Your task to perform on an android device: open app "Pandora - Music & Podcasts" (install if not already installed) and enter user name: "creator@yahoo.com" and password: "valuable" Image 0: 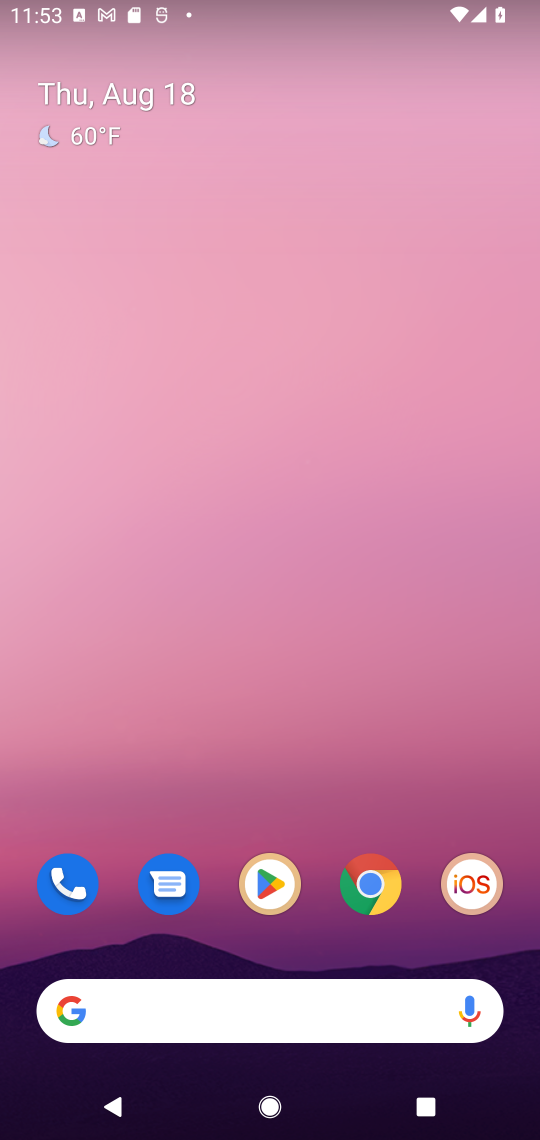
Step 0: drag from (278, 999) to (348, 60)
Your task to perform on an android device: open app "Pandora - Music & Podcasts" (install if not already installed) and enter user name: "creator@yahoo.com" and password: "valuable" Image 1: 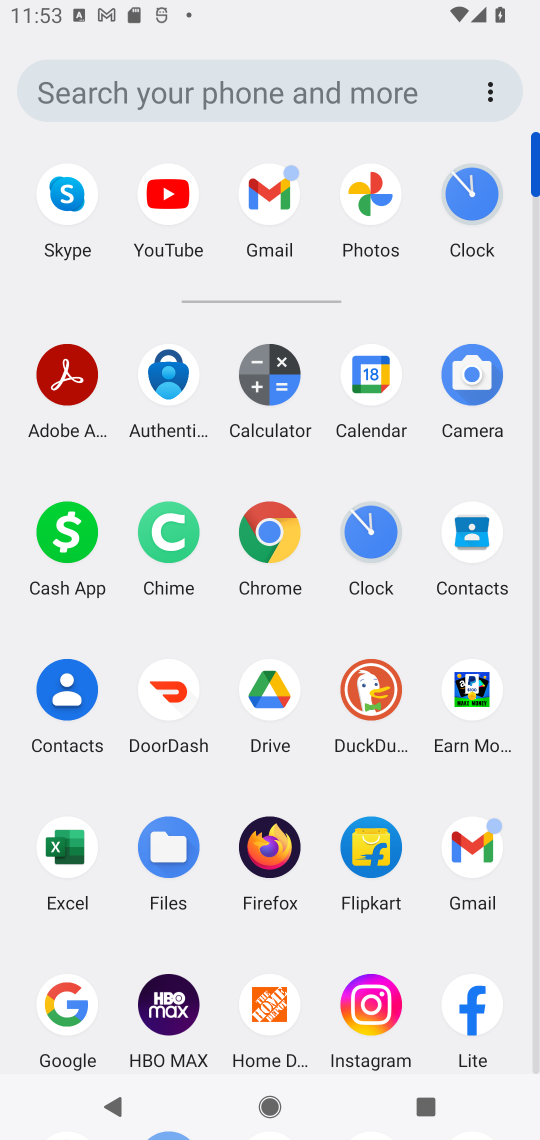
Step 1: drag from (218, 974) to (240, 257)
Your task to perform on an android device: open app "Pandora - Music & Podcasts" (install if not already installed) and enter user name: "creator@yahoo.com" and password: "valuable" Image 2: 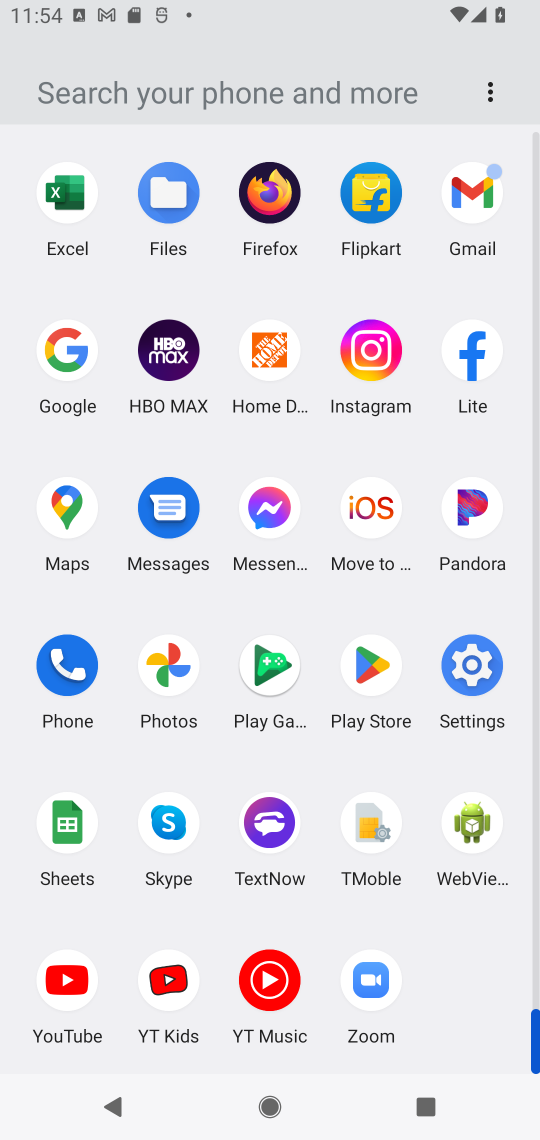
Step 2: click (374, 669)
Your task to perform on an android device: open app "Pandora - Music & Podcasts" (install if not already installed) and enter user name: "creator@yahoo.com" and password: "valuable" Image 3: 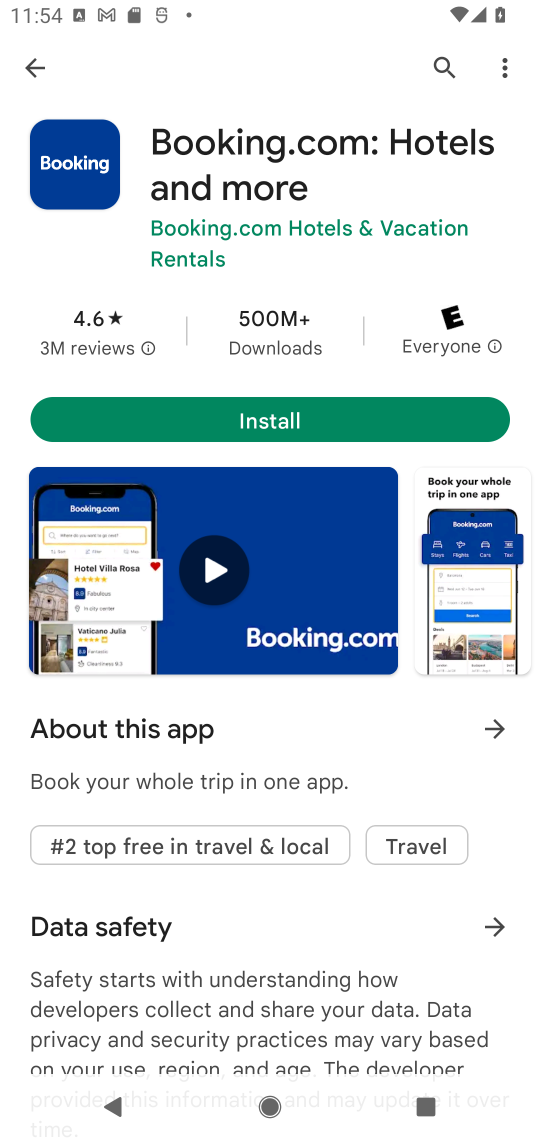
Step 3: press back button
Your task to perform on an android device: open app "Pandora - Music & Podcasts" (install if not already installed) and enter user name: "creator@yahoo.com" and password: "valuable" Image 4: 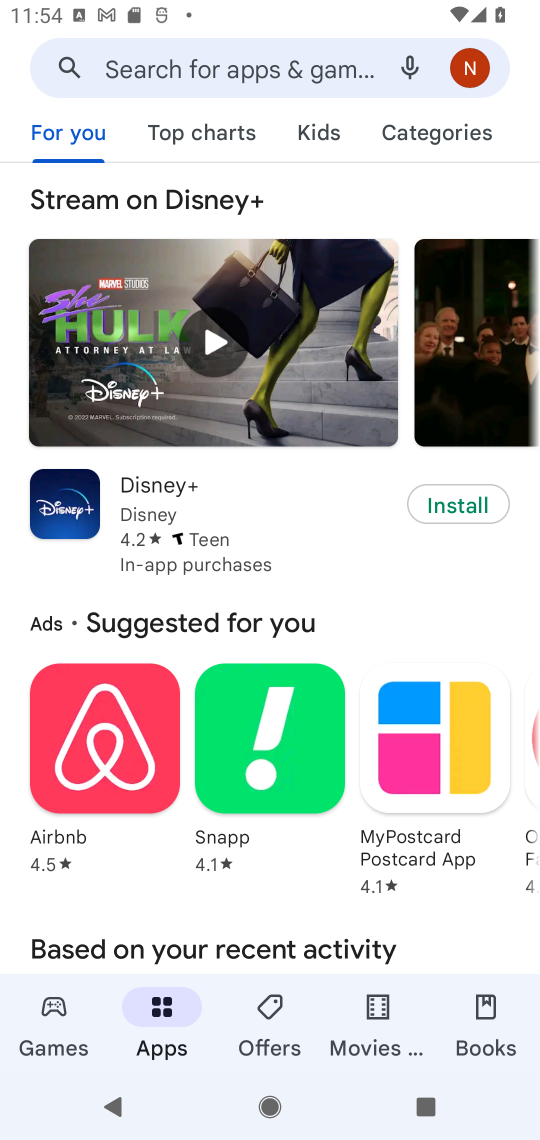
Step 4: click (304, 70)
Your task to perform on an android device: open app "Pandora - Music & Podcasts" (install if not already installed) and enter user name: "creator@yahoo.com" and password: "valuable" Image 5: 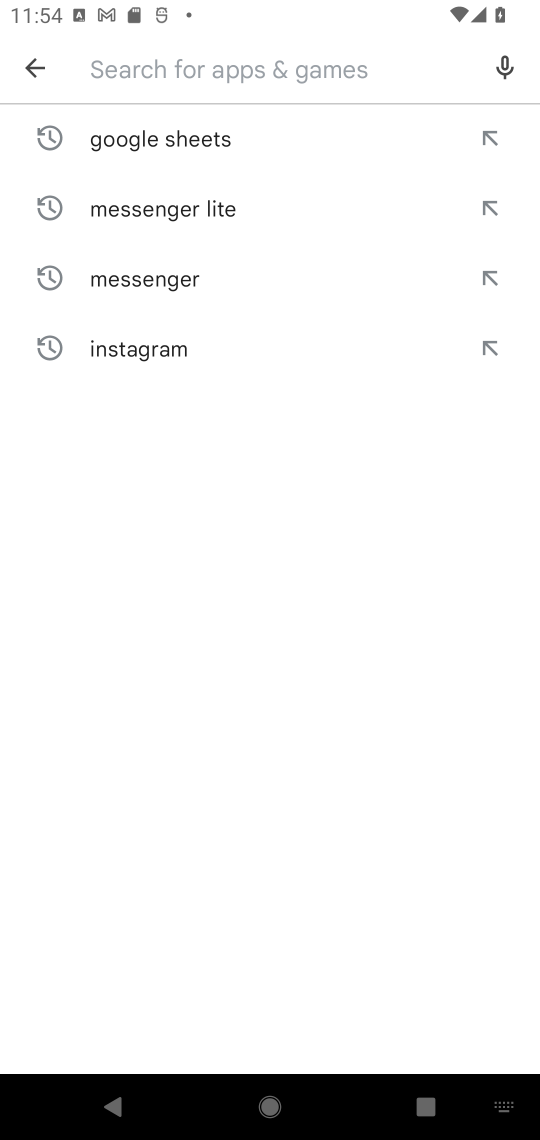
Step 5: type "Pandora - Music & Podcasts"
Your task to perform on an android device: open app "Pandora - Music & Podcasts" (install if not already installed) and enter user name: "creator@yahoo.com" and password: "valuable" Image 6: 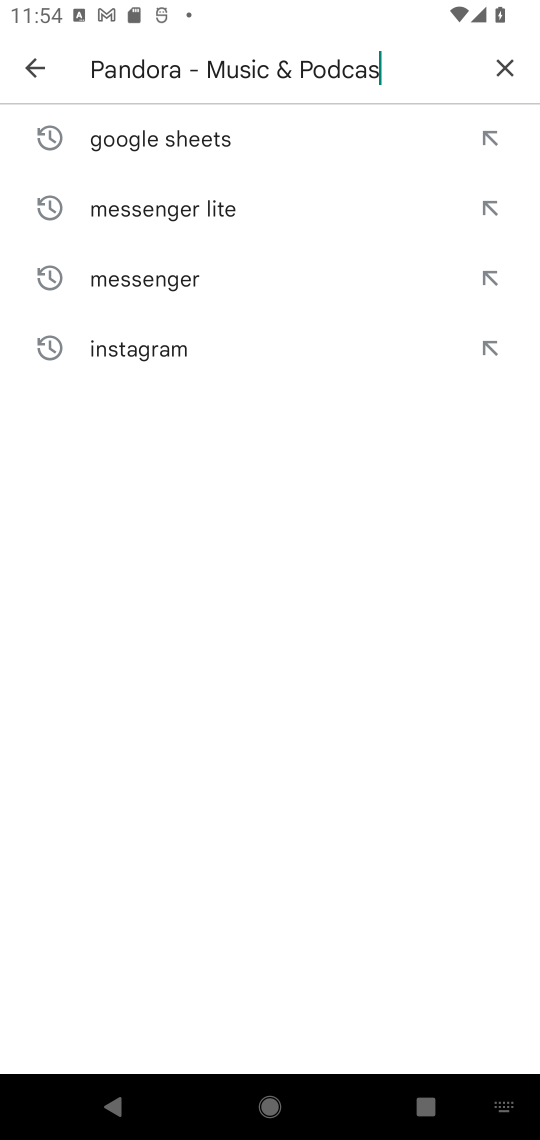
Step 6: type ""
Your task to perform on an android device: open app "Pandora - Music & Podcasts" (install if not already installed) and enter user name: "creator@yahoo.com" and password: "valuable" Image 7: 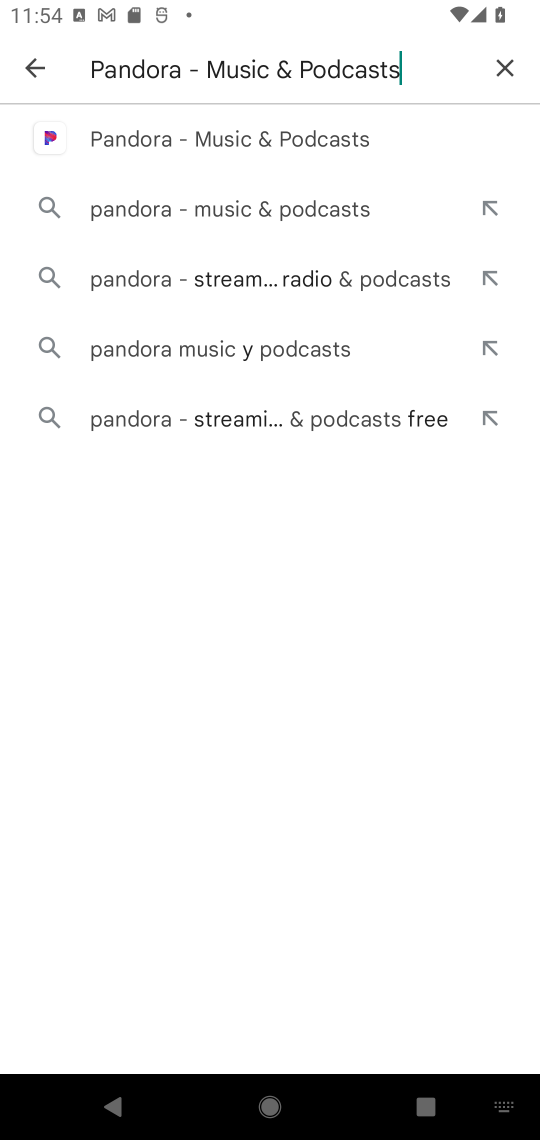
Step 7: click (170, 118)
Your task to perform on an android device: open app "Pandora - Music & Podcasts" (install if not already installed) and enter user name: "creator@yahoo.com" and password: "valuable" Image 8: 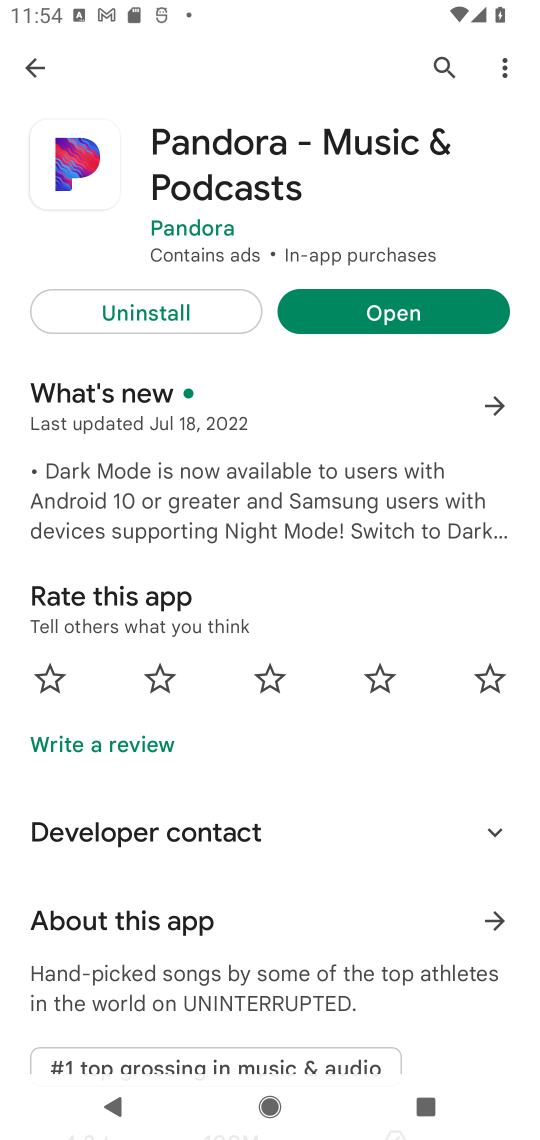
Step 8: click (343, 319)
Your task to perform on an android device: open app "Pandora - Music & Podcasts" (install if not already installed) and enter user name: "creator@yahoo.com" and password: "valuable" Image 9: 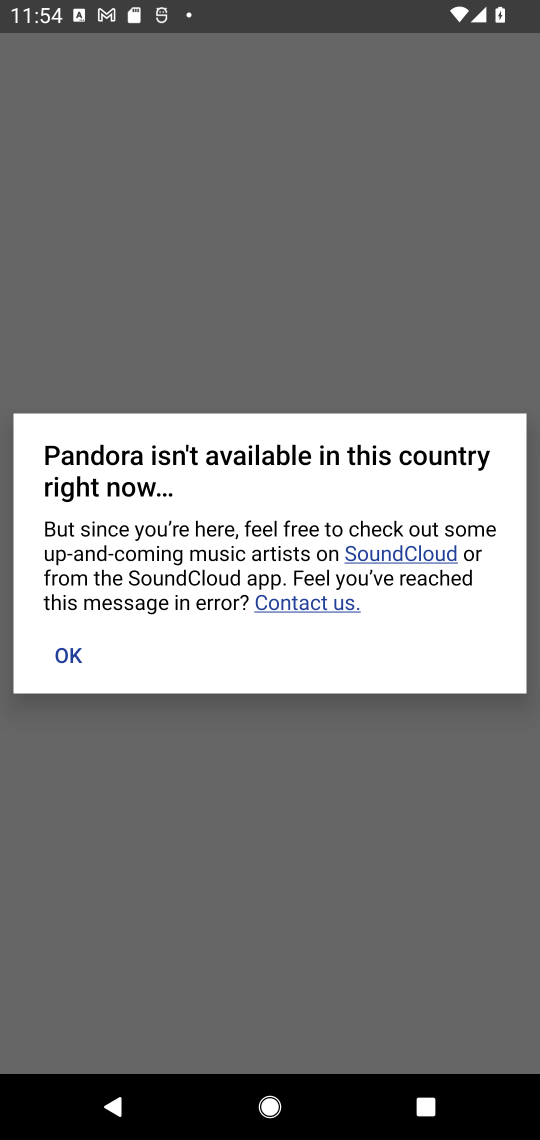
Step 9: click (69, 662)
Your task to perform on an android device: open app "Pandora - Music & Podcasts" (install if not already installed) and enter user name: "creator@yahoo.com" and password: "valuable" Image 10: 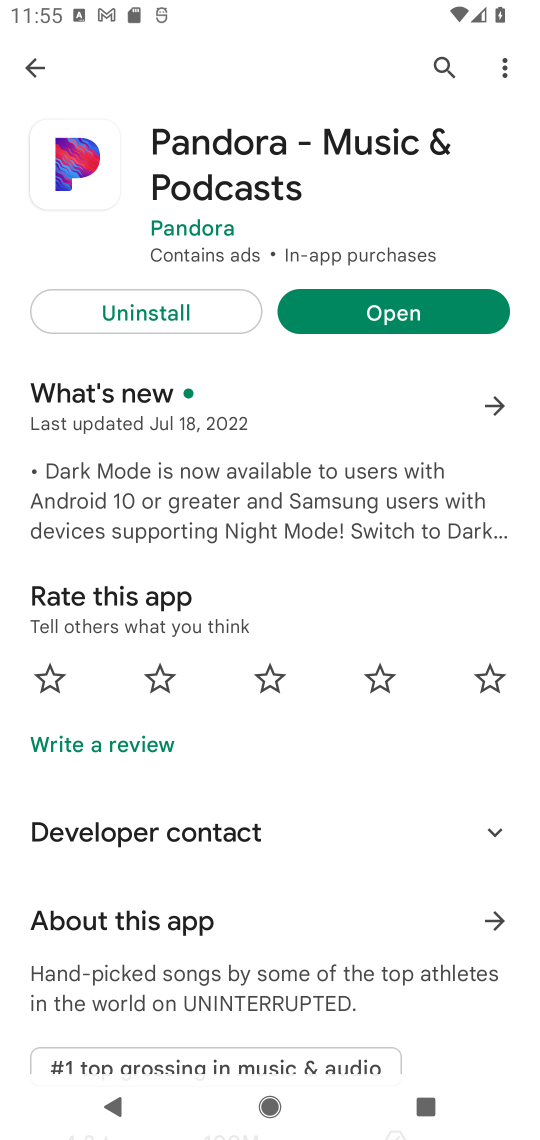
Step 10: task complete